Your task to perform on an android device: Open Google Chrome and click the shortcut for Amazon.com Image 0: 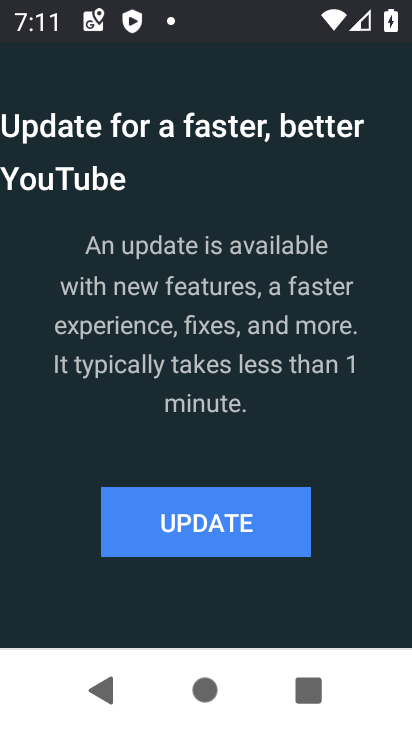
Step 0: press home button
Your task to perform on an android device: Open Google Chrome and click the shortcut for Amazon.com Image 1: 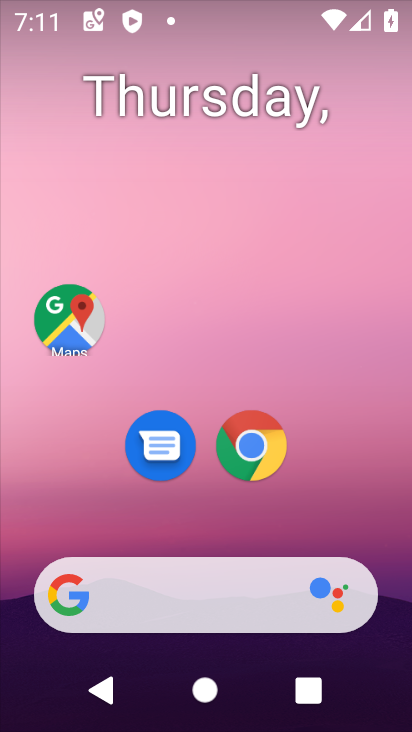
Step 1: click (253, 446)
Your task to perform on an android device: Open Google Chrome and click the shortcut for Amazon.com Image 2: 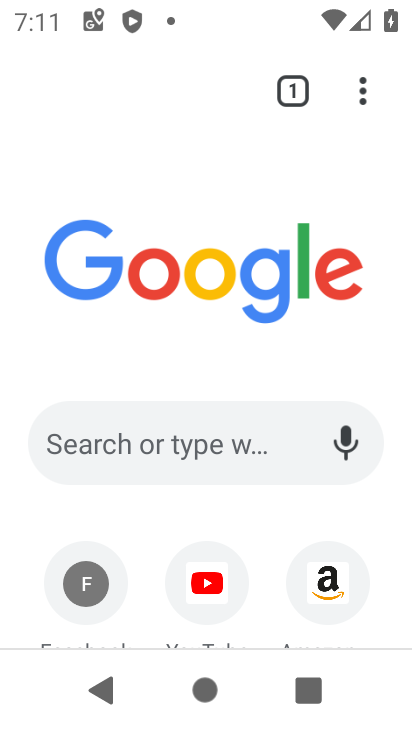
Step 2: drag from (217, 354) to (177, 33)
Your task to perform on an android device: Open Google Chrome and click the shortcut for Amazon.com Image 3: 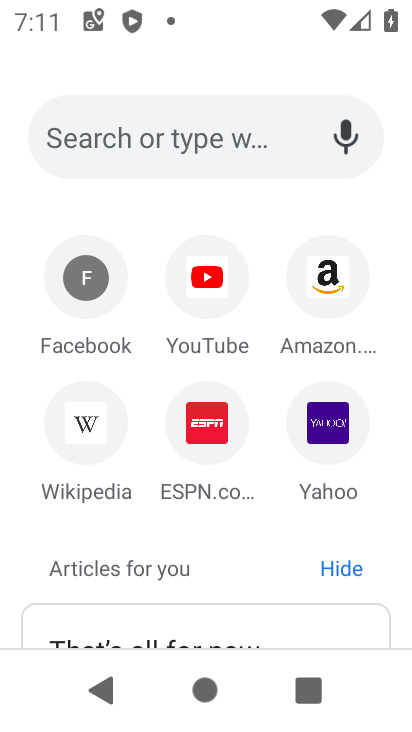
Step 3: click (329, 276)
Your task to perform on an android device: Open Google Chrome and click the shortcut for Amazon.com Image 4: 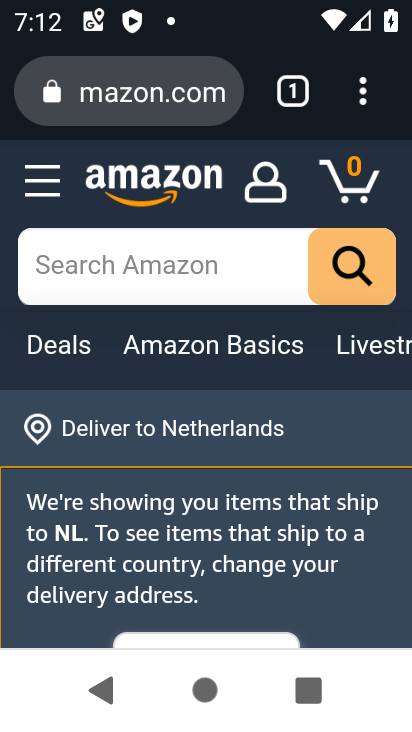
Step 4: task complete